Your task to perform on an android device: Open the phone app and click the voicemail tab. Image 0: 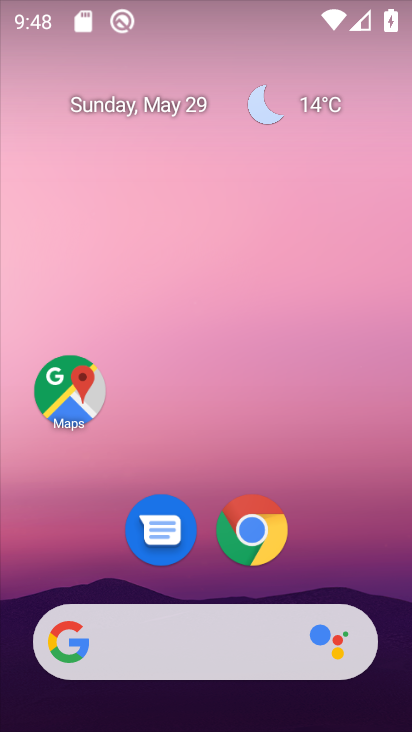
Step 0: drag from (223, 608) to (246, 150)
Your task to perform on an android device: Open the phone app and click the voicemail tab. Image 1: 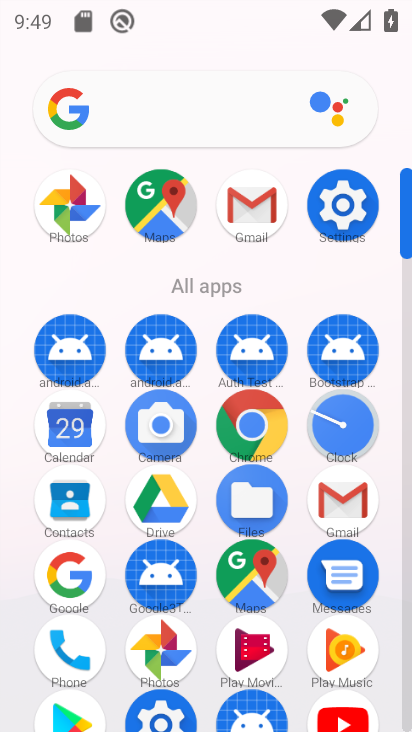
Step 1: click (68, 652)
Your task to perform on an android device: Open the phone app and click the voicemail tab. Image 2: 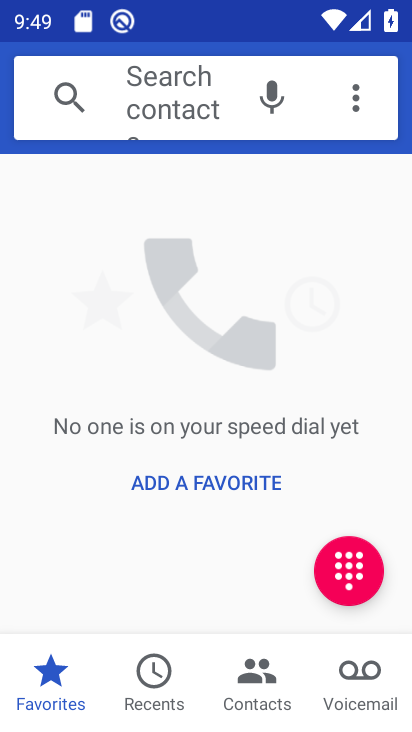
Step 2: click (384, 672)
Your task to perform on an android device: Open the phone app and click the voicemail tab. Image 3: 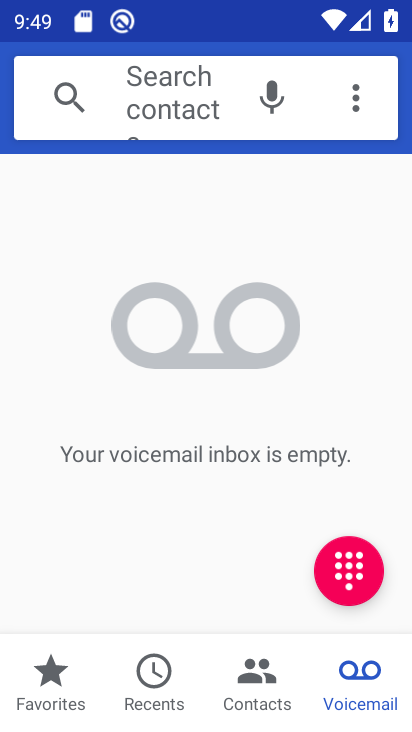
Step 3: task complete